Your task to perform on an android device: turn on showing notifications on the lock screen Image 0: 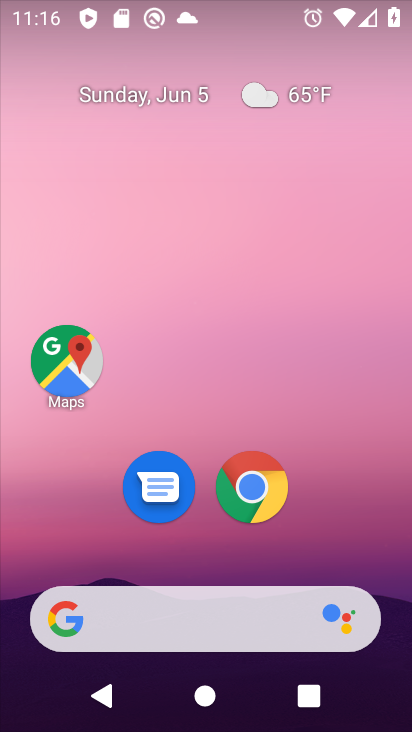
Step 0: drag from (335, 545) to (252, 66)
Your task to perform on an android device: turn on showing notifications on the lock screen Image 1: 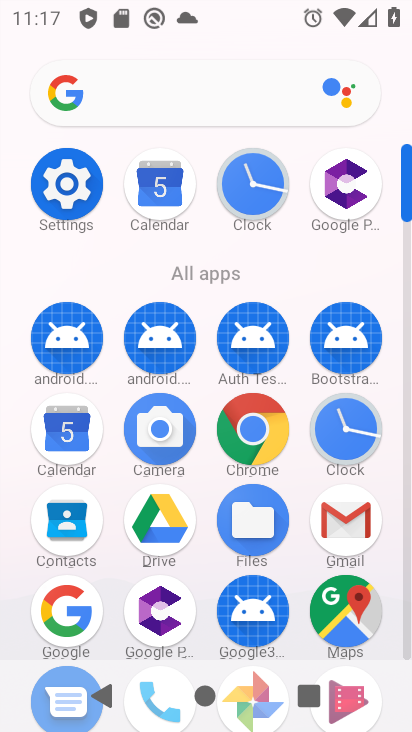
Step 1: click (68, 183)
Your task to perform on an android device: turn on showing notifications on the lock screen Image 2: 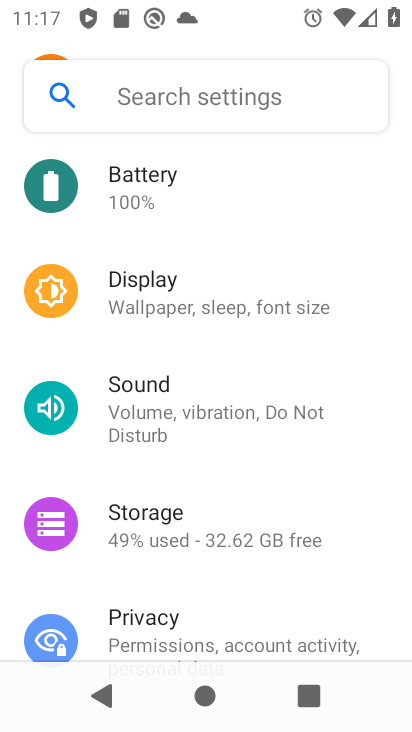
Step 2: drag from (242, 245) to (189, 384)
Your task to perform on an android device: turn on showing notifications on the lock screen Image 3: 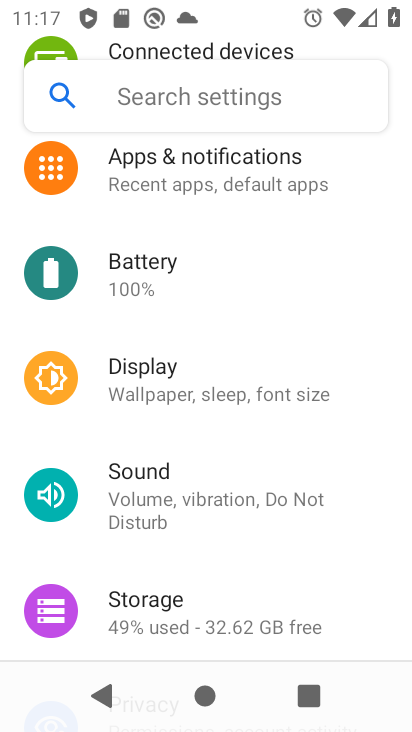
Step 3: drag from (210, 258) to (204, 464)
Your task to perform on an android device: turn on showing notifications on the lock screen Image 4: 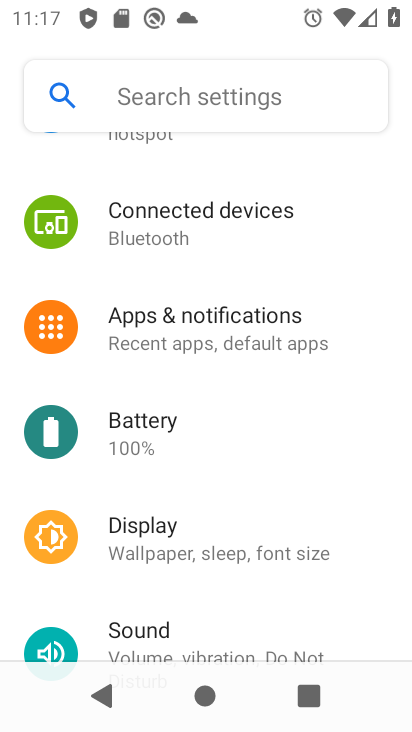
Step 4: click (264, 323)
Your task to perform on an android device: turn on showing notifications on the lock screen Image 5: 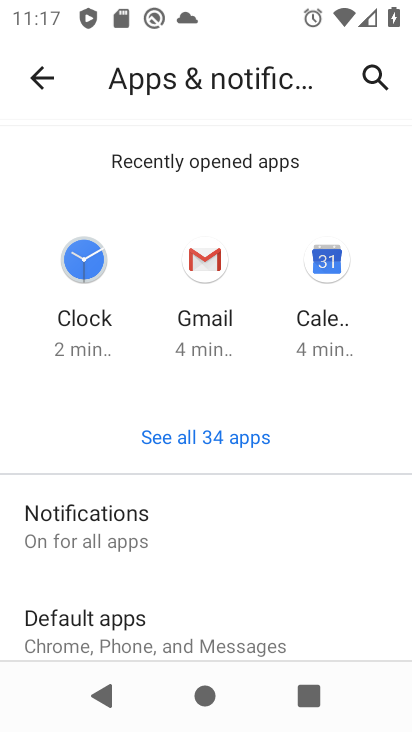
Step 5: drag from (188, 570) to (174, 432)
Your task to perform on an android device: turn on showing notifications on the lock screen Image 6: 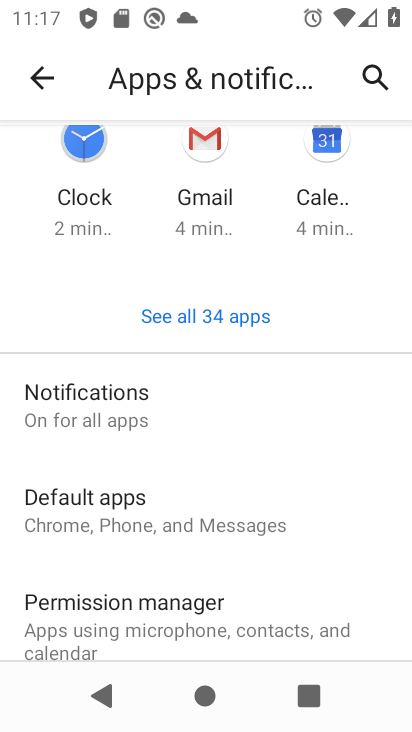
Step 6: click (124, 408)
Your task to perform on an android device: turn on showing notifications on the lock screen Image 7: 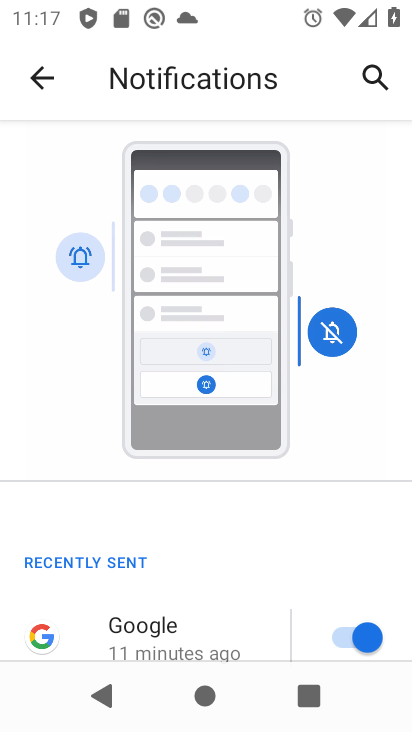
Step 7: drag from (179, 523) to (249, 194)
Your task to perform on an android device: turn on showing notifications on the lock screen Image 8: 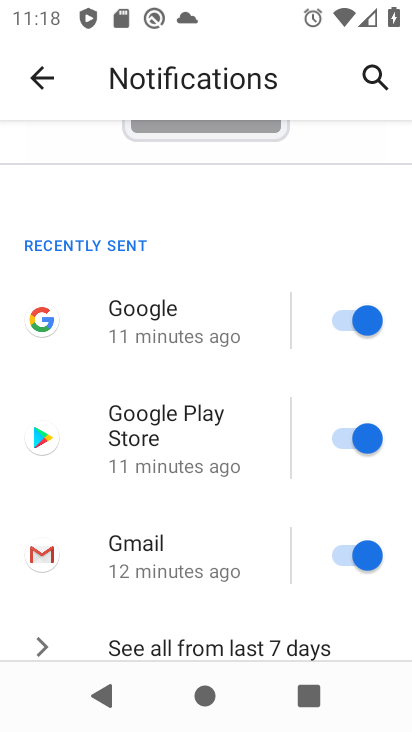
Step 8: drag from (168, 599) to (252, 387)
Your task to perform on an android device: turn on showing notifications on the lock screen Image 9: 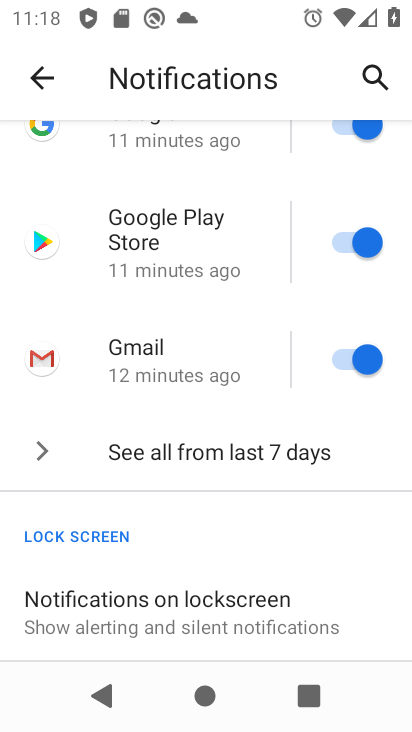
Step 9: drag from (128, 566) to (188, 399)
Your task to perform on an android device: turn on showing notifications on the lock screen Image 10: 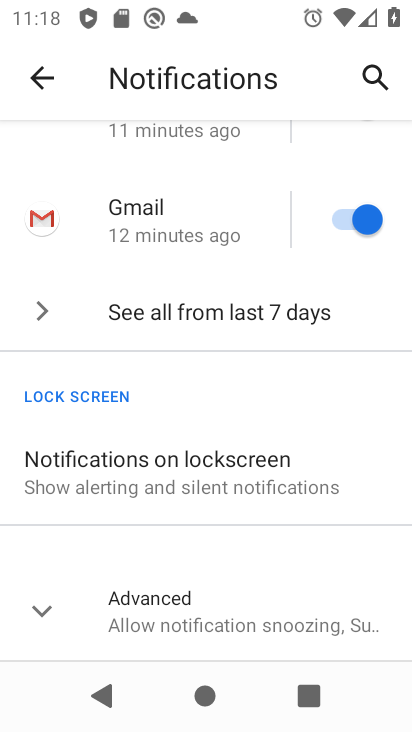
Step 10: click (221, 475)
Your task to perform on an android device: turn on showing notifications on the lock screen Image 11: 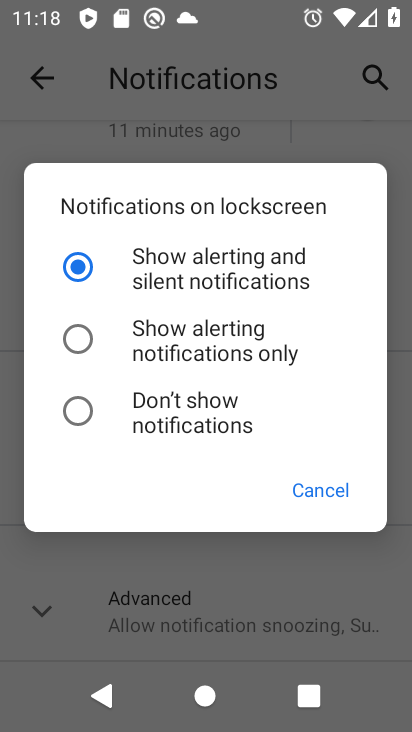
Step 11: click (78, 267)
Your task to perform on an android device: turn on showing notifications on the lock screen Image 12: 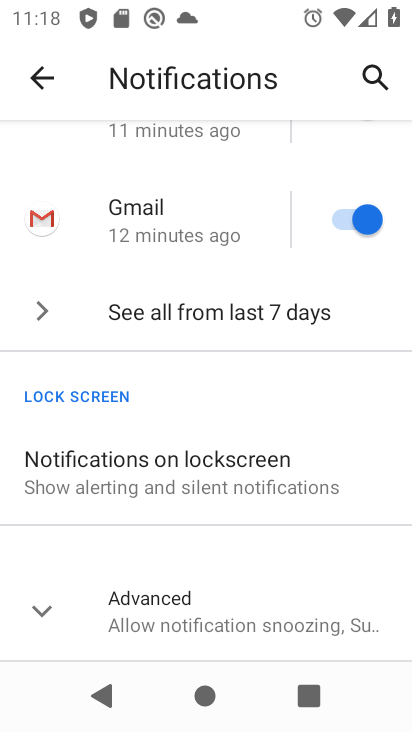
Step 12: task complete